Your task to perform on an android device: open device folders in google photos Image 0: 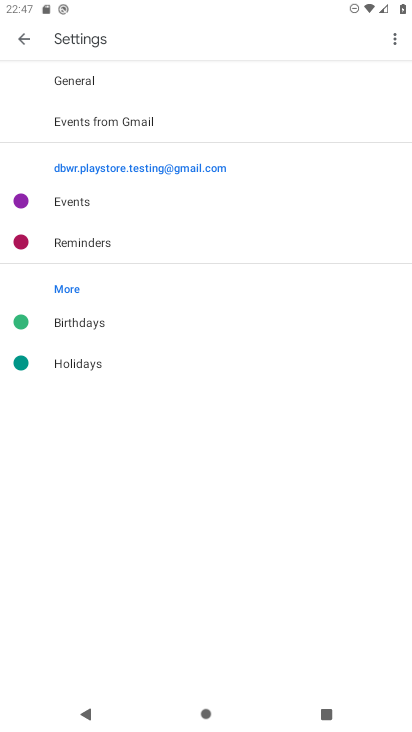
Step 0: press home button
Your task to perform on an android device: open device folders in google photos Image 1: 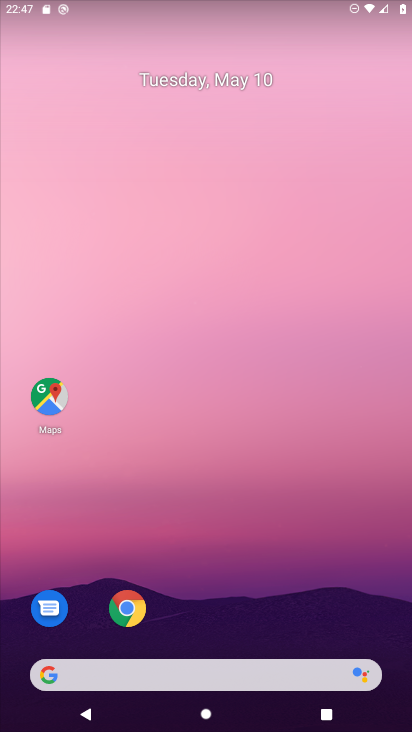
Step 1: drag from (215, 562) to (190, 208)
Your task to perform on an android device: open device folders in google photos Image 2: 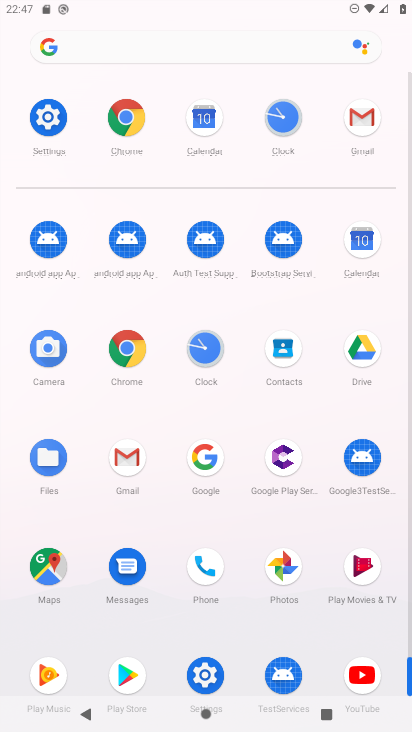
Step 2: click (277, 566)
Your task to perform on an android device: open device folders in google photos Image 3: 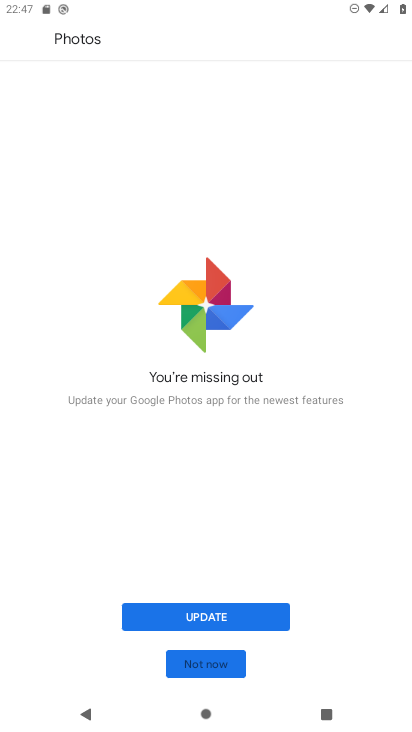
Step 3: click (227, 610)
Your task to perform on an android device: open device folders in google photos Image 4: 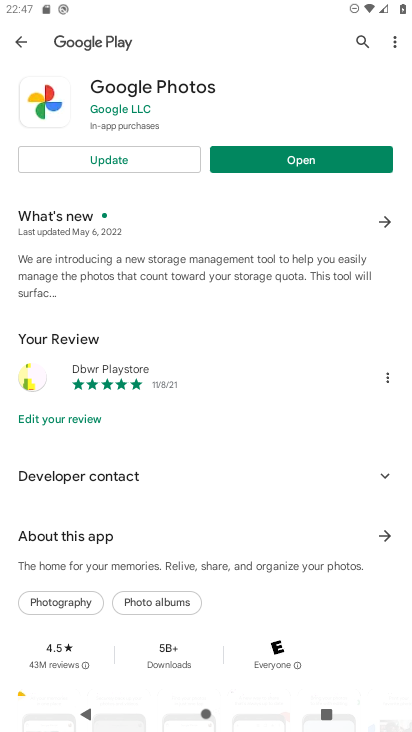
Step 4: press back button
Your task to perform on an android device: open device folders in google photos Image 5: 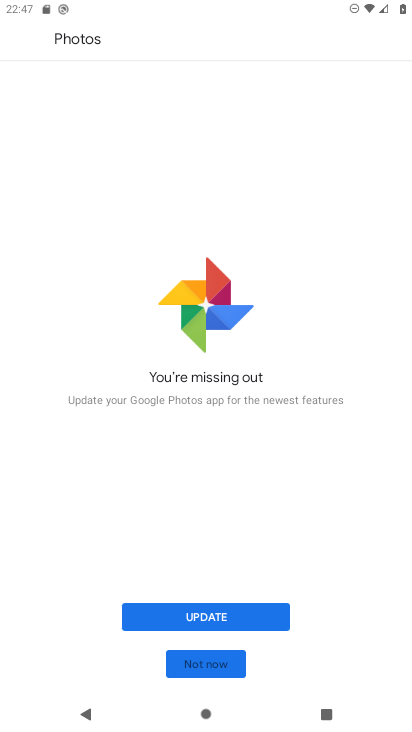
Step 5: click (202, 655)
Your task to perform on an android device: open device folders in google photos Image 6: 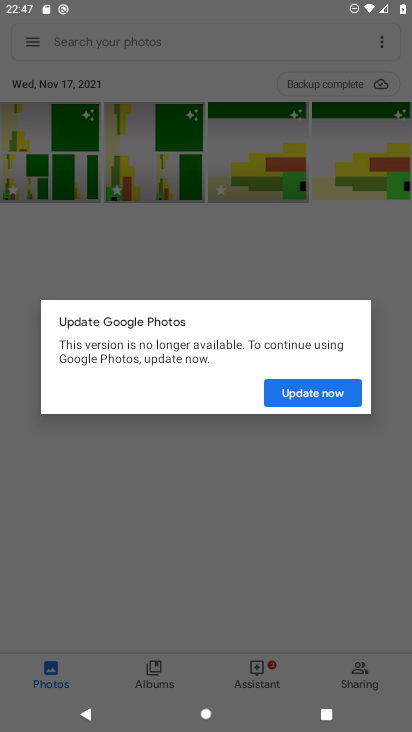
Step 6: click (292, 392)
Your task to perform on an android device: open device folders in google photos Image 7: 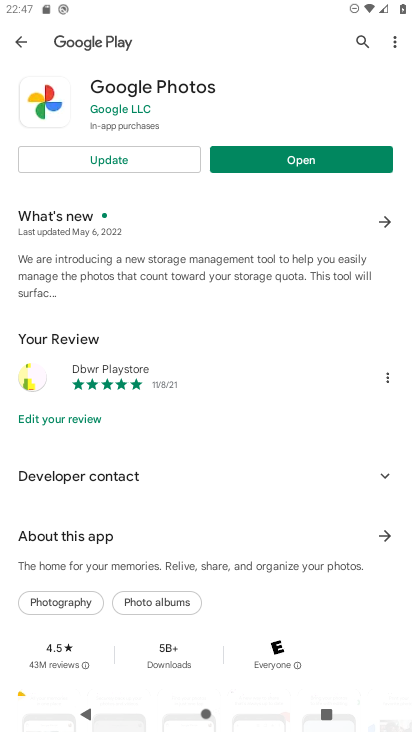
Step 7: press back button
Your task to perform on an android device: open device folders in google photos Image 8: 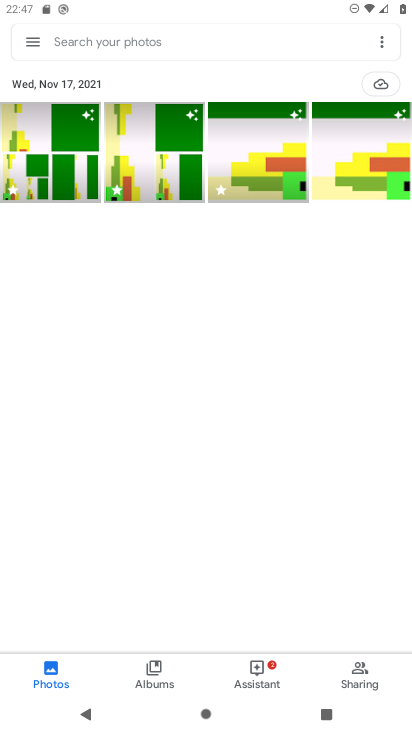
Step 8: click (65, 158)
Your task to perform on an android device: open device folders in google photos Image 9: 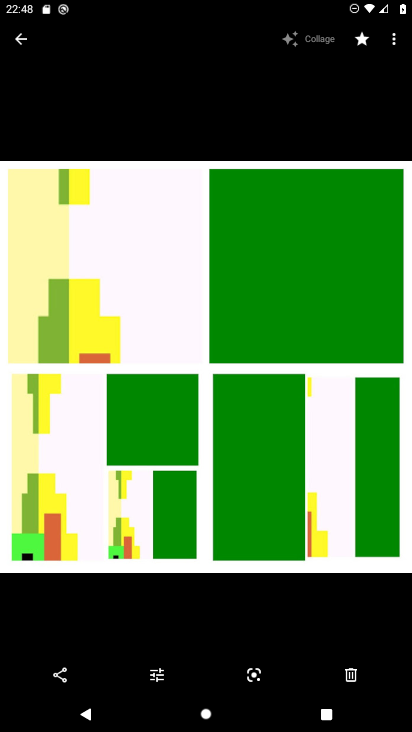
Step 9: task complete